Your task to perform on an android device: toggle sleep mode Image 0: 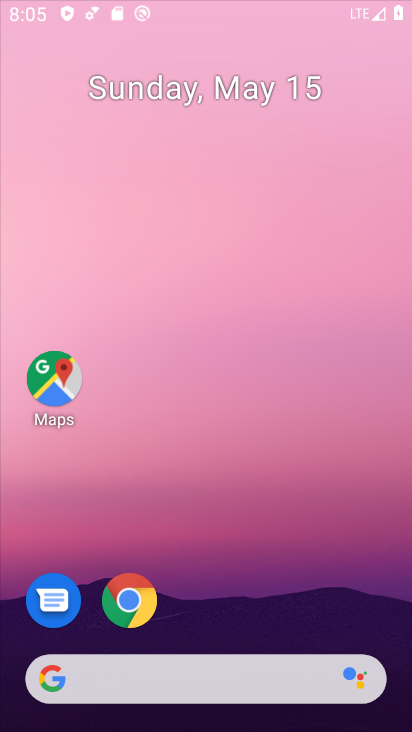
Step 0: click (70, 100)
Your task to perform on an android device: toggle sleep mode Image 1: 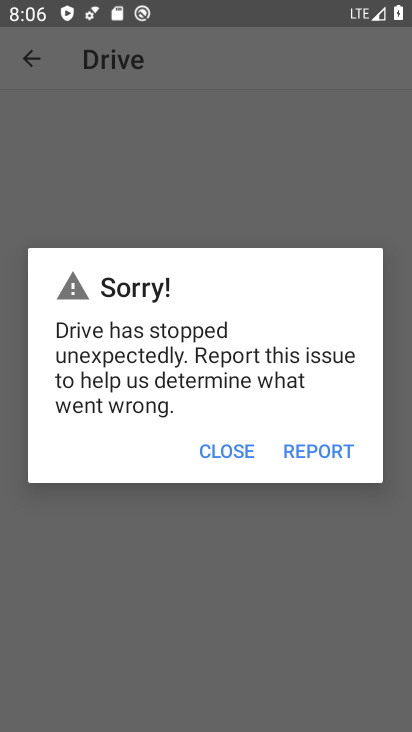
Step 1: press home button
Your task to perform on an android device: toggle sleep mode Image 2: 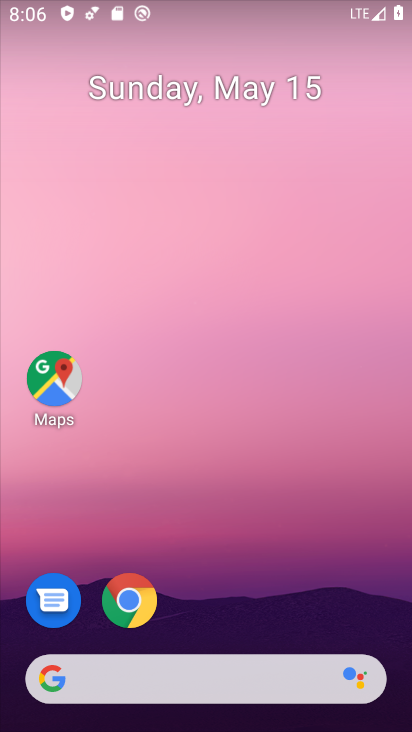
Step 2: drag from (263, 588) to (127, 679)
Your task to perform on an android device: toggle sleep mode Image 3: 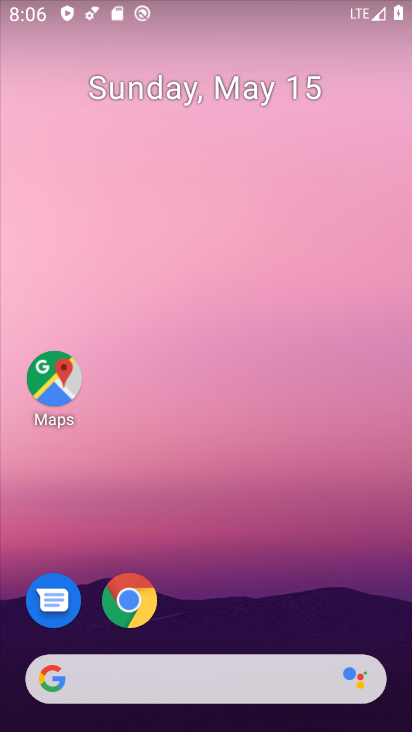
Step 3: drag from (227, 559) to (143, 47)
Your task to perform on an android device: toggle sleep mode Image 4: 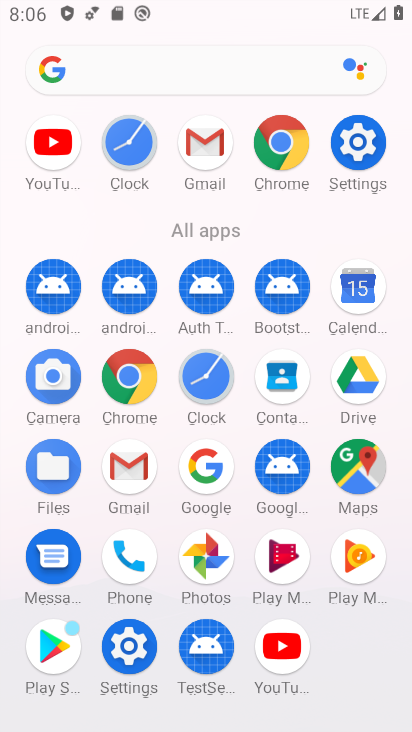
Step 4: click (125, 669)
Your task to perform on an android device: toggle sleep mode Image 5: 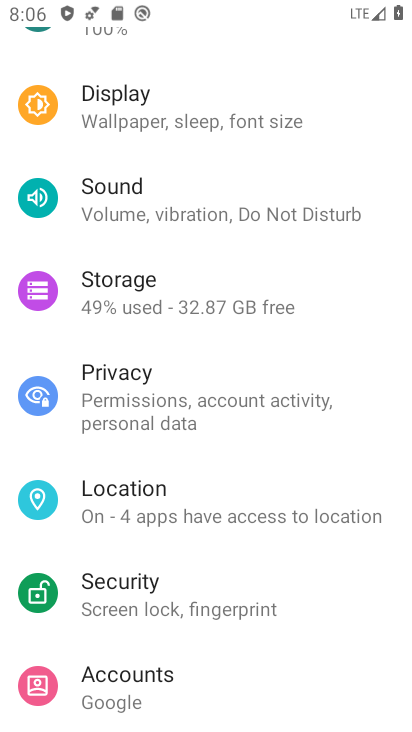
Step 5: click (163, 138)
Your task to perform on an android device: toggle sleep mode Image 6: 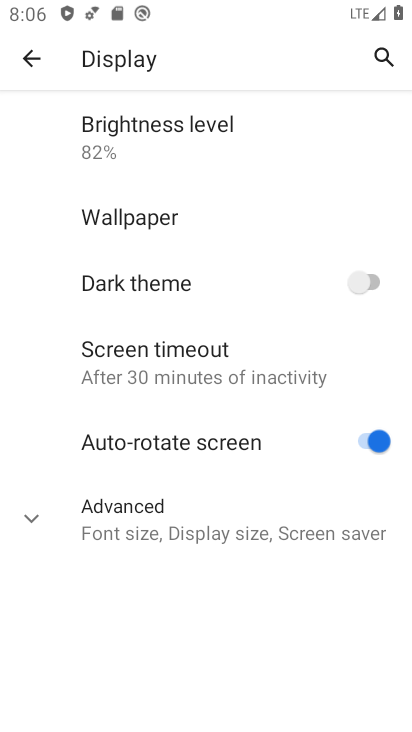
Step 6: click (156, 531)
Your task to perform on an android device: toggle sleep mode Image 7: 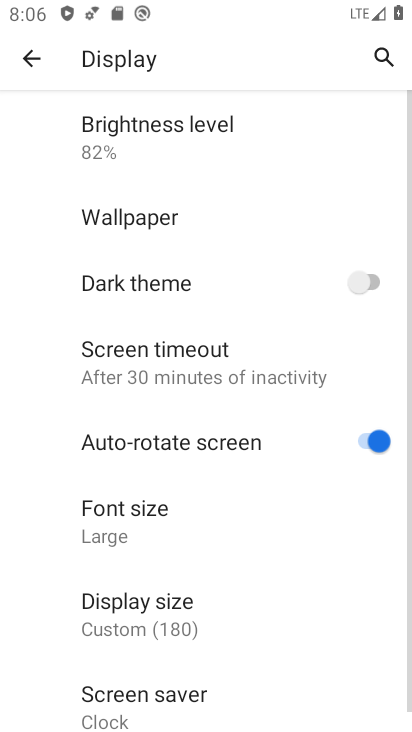
Step 7: task complete